Your task to perform on an android device: Find coffee shops on Maps Image 0: 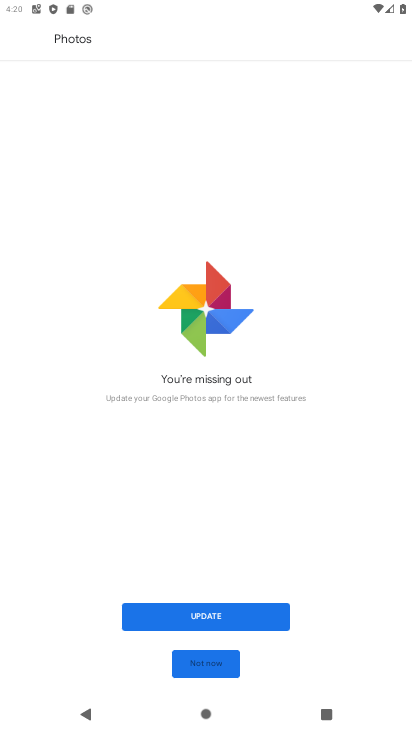
Step 0: press home button
Your task to perform on an android device: Find coffee shops on Maps Image 1: 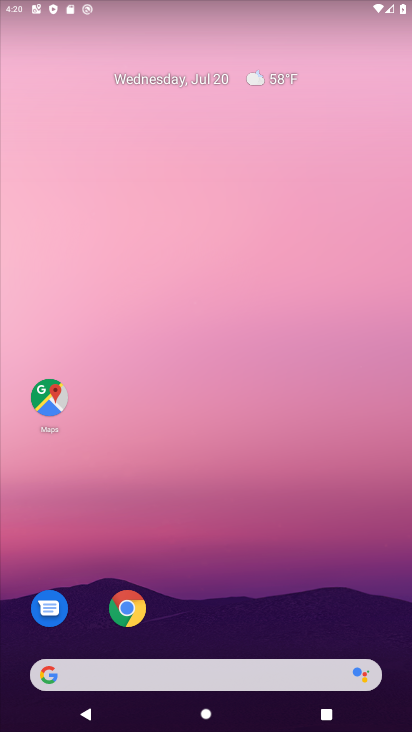
Step 1: click (58, 401)
Your task to perform on an android device: Find coffee shops on Maps Image 2: 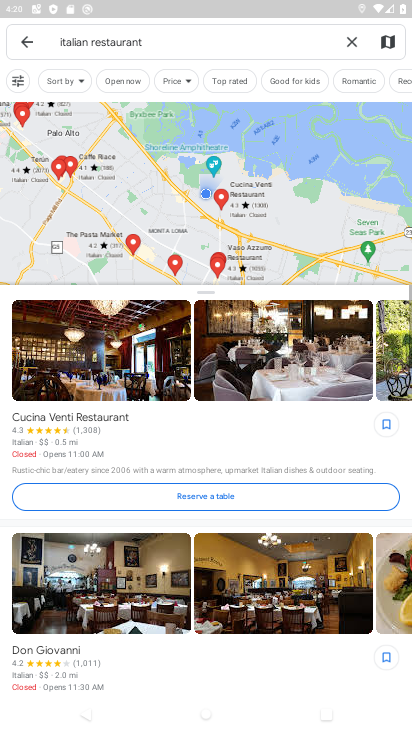
Step 2: click (352, 39)
Your task to perform on an android device: Find coffee shops on Maps Image 3: 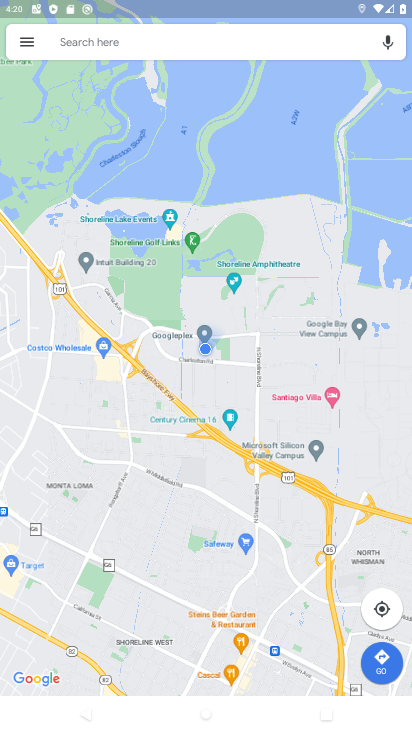
Step 3: click (352, 39)
Your task to perform on an android device: Find coffee shops on Maps Image 4: 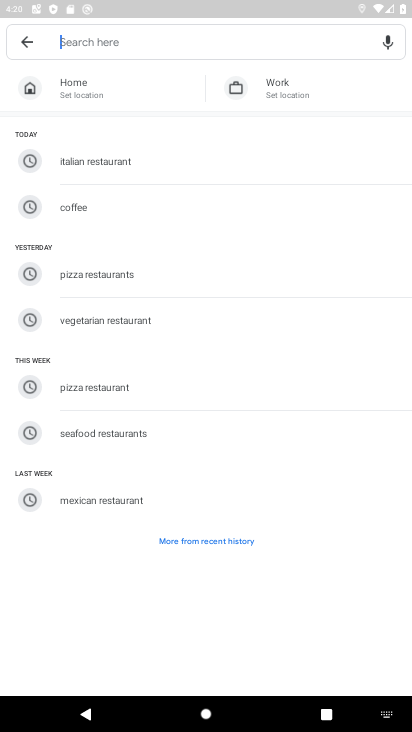
Step 4: click (69, 198)
Your task to perform on an android device: Find coffee shops on Maps Image 5: 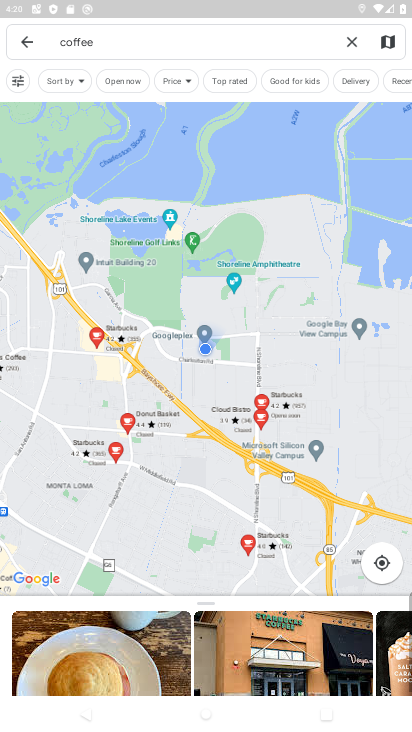
Step 5: task complete